Your task to perform on an android device: see creations saved in the google photos Image 0: 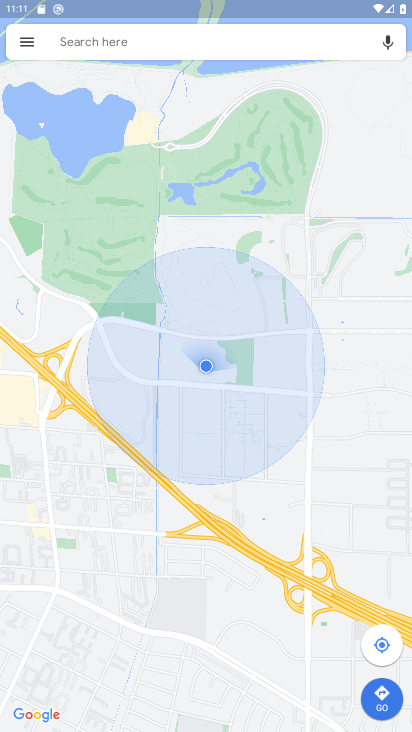
Step 0: press home button
Your task to perform on an android device: see creations saved in the google photos Image 1: 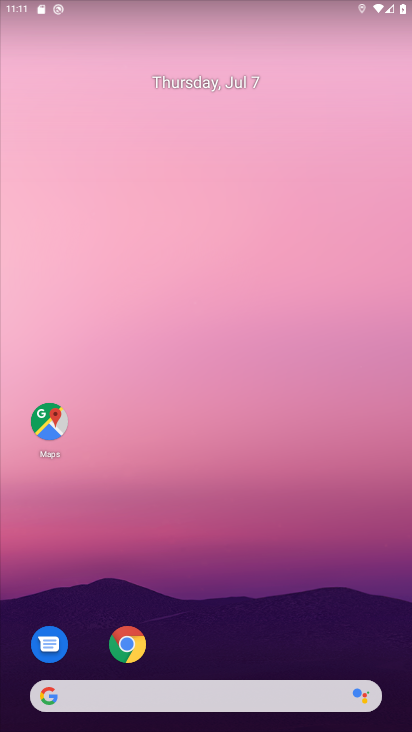
Step 1: press home button
Your task to perform on an android device: see creations saved in the google photos Image 2: 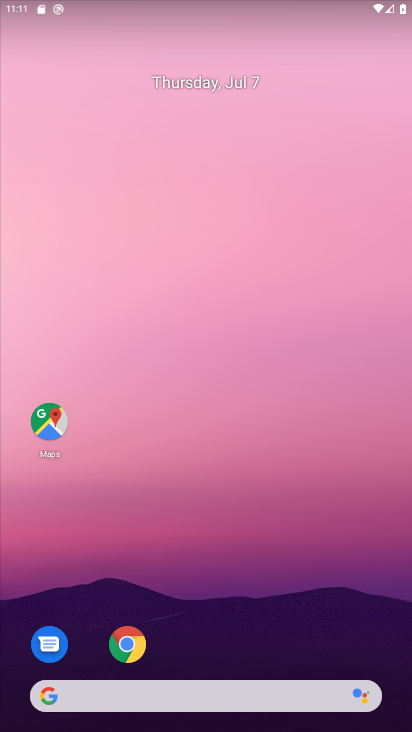
Step 2: drag from (201, 728) to (239, 167)
Your task to perform on an android device: see creations saved in the google photos Image 3: 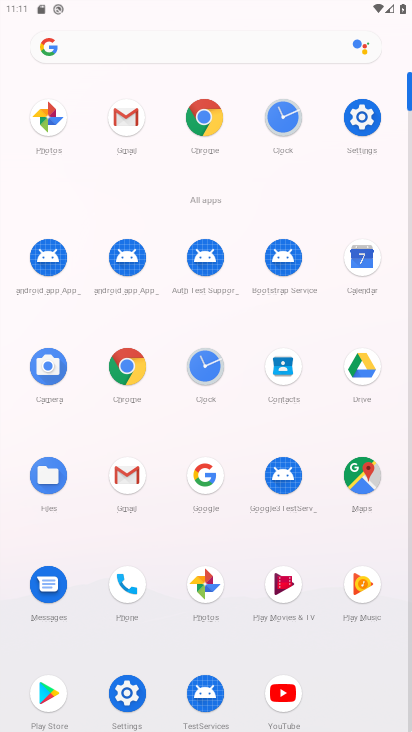
Step 3: click (210, 587)
Your task to perform on an android device: see creations saved in the google photos Image 4: 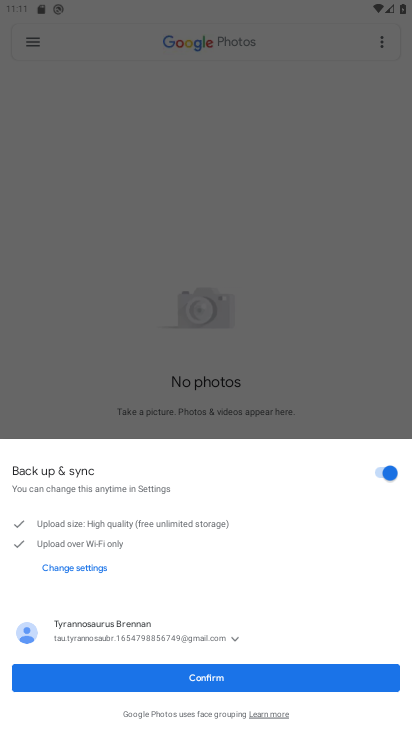
Step 4: click (212, 665)
Your task to perform on an android device: see creations saved in the google photos Image 5: 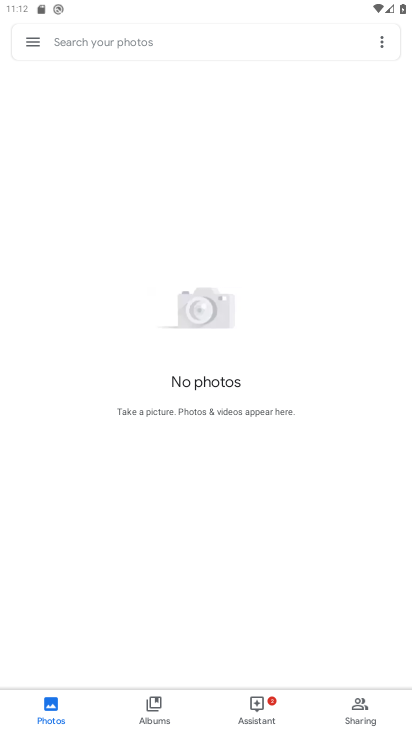
Step 5: click (123, 38)
Your task to perform on an android device: see creations saved in the google photos Image 6: 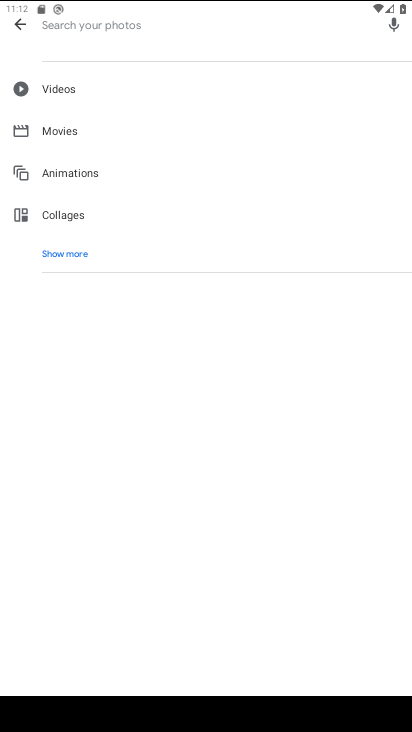
Step 6: click (59, 252)
Your task to perform on an android device: see creations saved in the google photos Image 7: 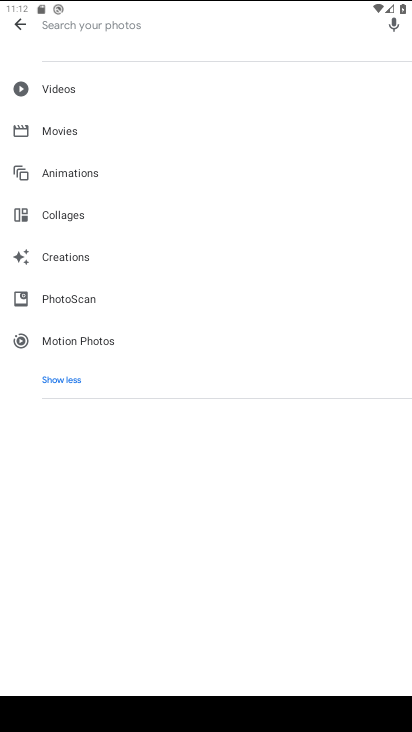
Step 7: click (72, 256)
Your task to perform on an android device: see creations saved in the google photos Image 8: 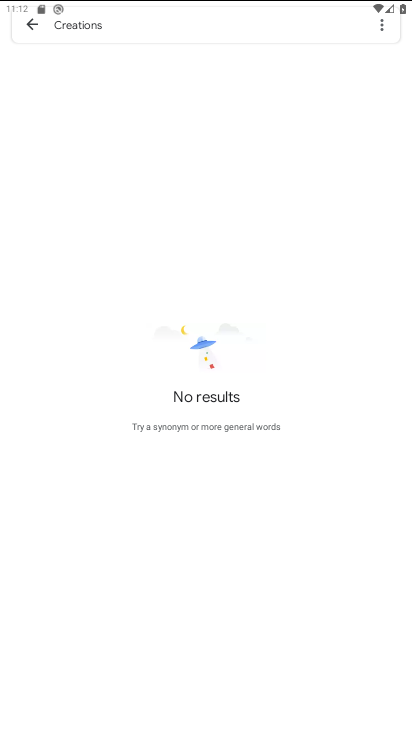
Step 8: task complete